Your task to perform on an android device: When is my next appointment? Image 0: 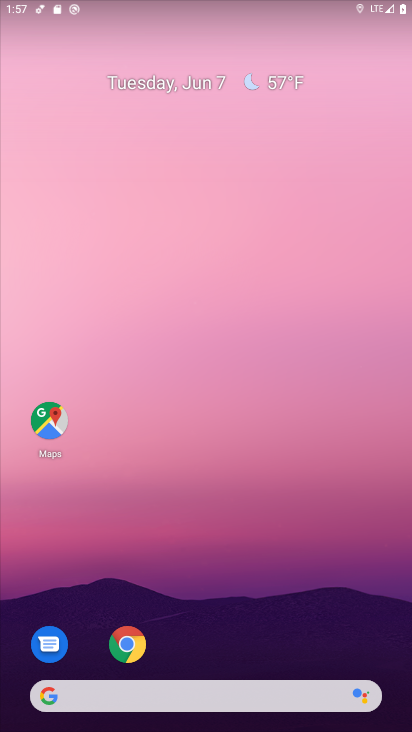
Step 0: drag from (210, 590) to (197, 4)
Your task to perform on an android device: When is my next appointment? Image 1: 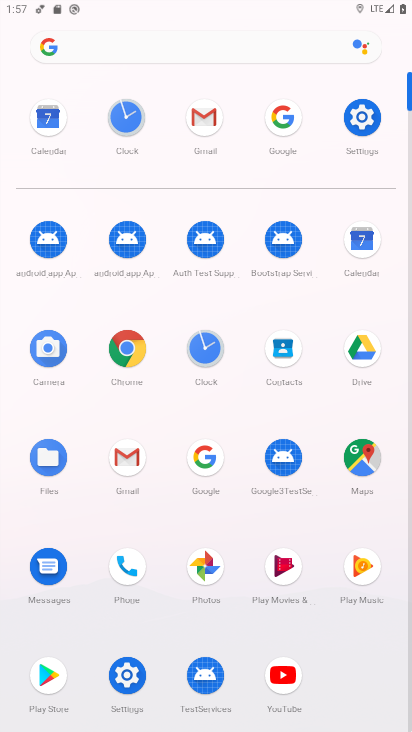
Step 1: click (362, 244)
Your task to perform on an android device: When is my next appointment? Image 2: 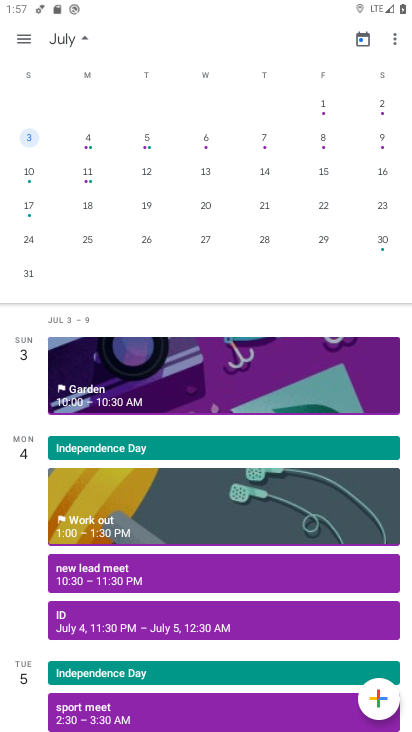
Step 2: click (61, 37)
Your task to perform on an android device: When is my next appointment? Image 3: 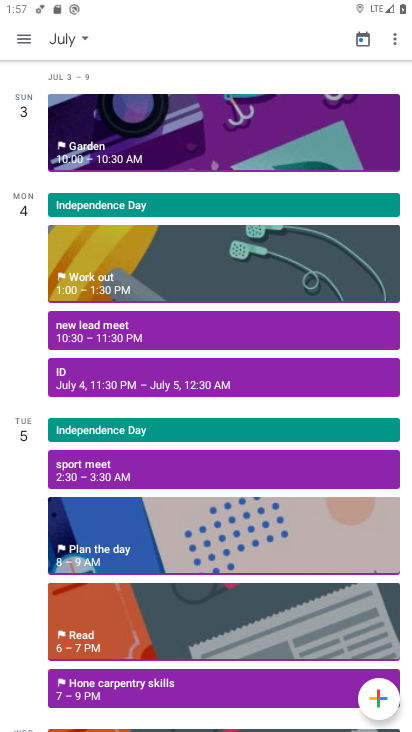
Step 3: click (54, 50)
Your task to perform on an android device: When is my next appointment? Image 4: 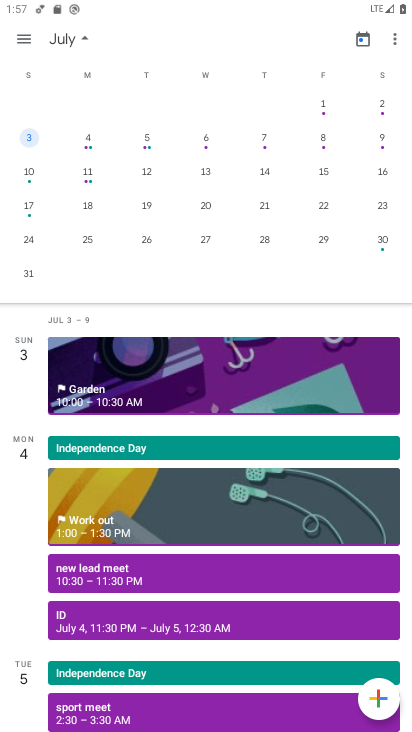
Step 4: drag from (50, 182) to (379, 286)
Your task to perform on an android device: When is my next appointment? Image 5: 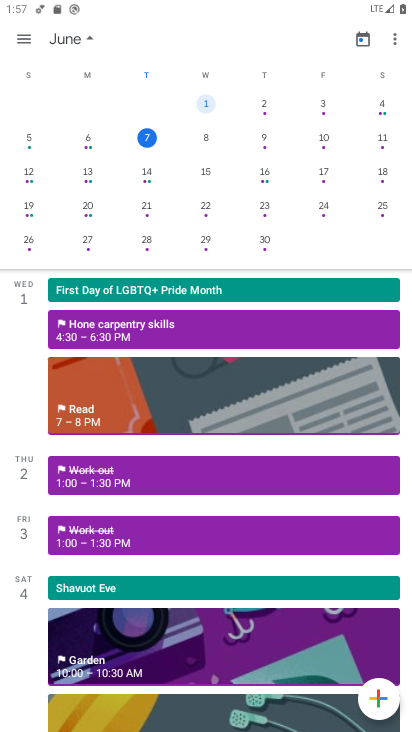
Step 5: click (150, 138)
Your task to perform on an android device: When is my next appointment? Image 6: 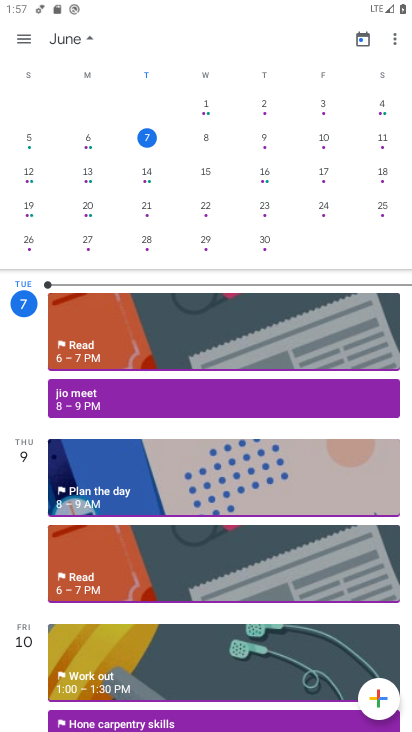
Step 6: task complete